Your task to perform on an android device: What's the latest news in space exploration? Image 0: 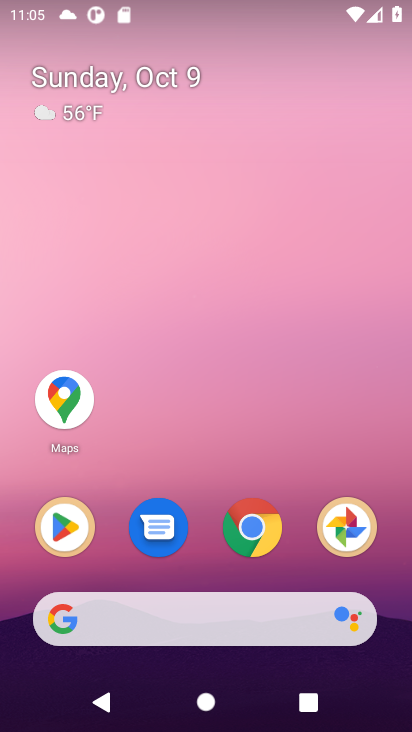
Step 0: click (202, 602)
Your task to perform on an android device: What's the latest news in space exploration? Image 1: 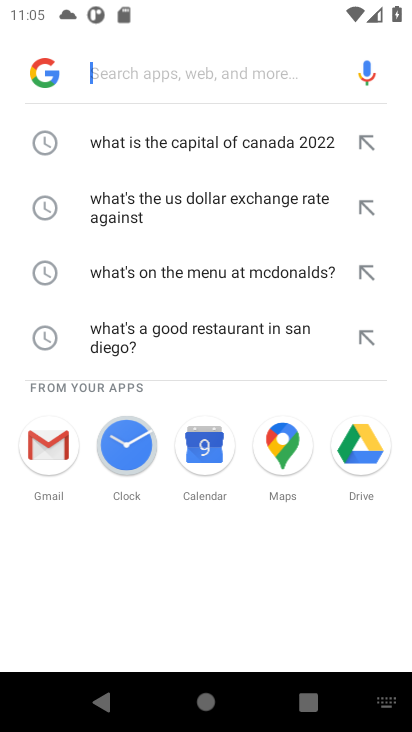
Step 1: click (159, 71)
Your task to perform on an android device: What's the latest news in space exploration? Image 2: 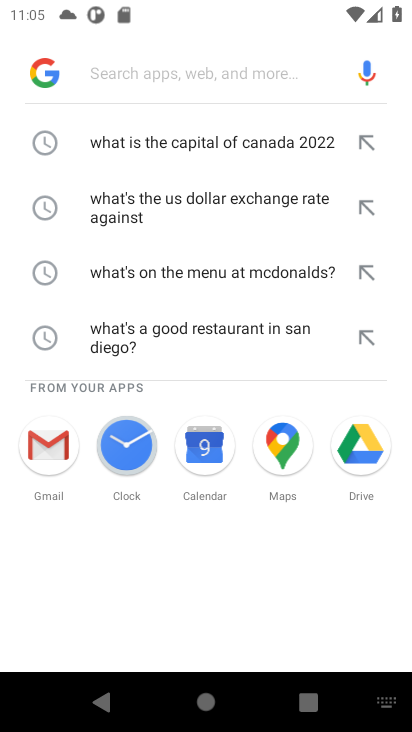
Step 2: type "What's the latest news in space exploration?"
Your task to perform on an android device: What's the latest news in space exploration? Image 3: 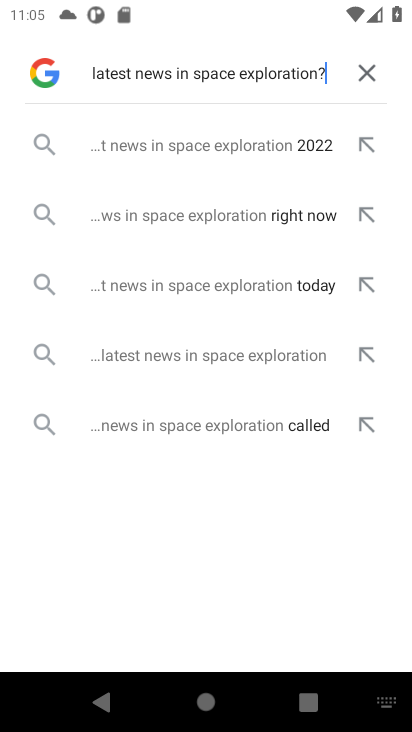
Step 3: click (270, 156)
Your task to perform on an android device: What's the latest news in space exploration? Image 4: 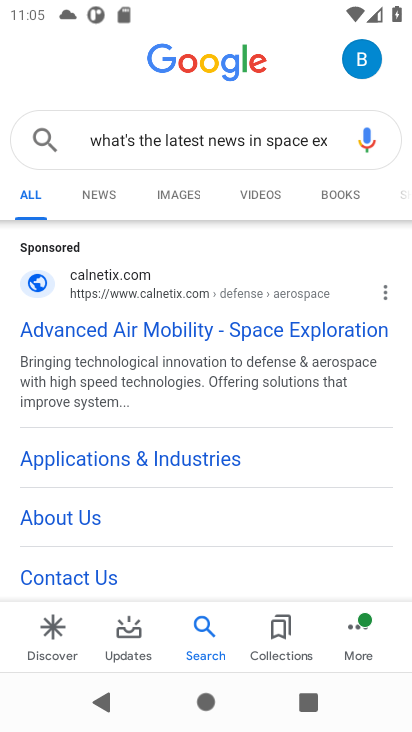
Step 4: click (150, 336)
Your task to perform on an android device: What's the latest news in space exploration? Image 5: 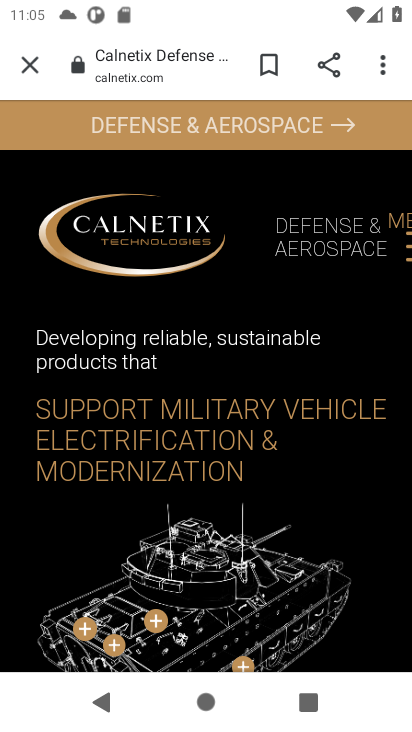
Step 5: task complete